Your task to perform on an android device: turn on showing notifications on the lock screen Image 0: 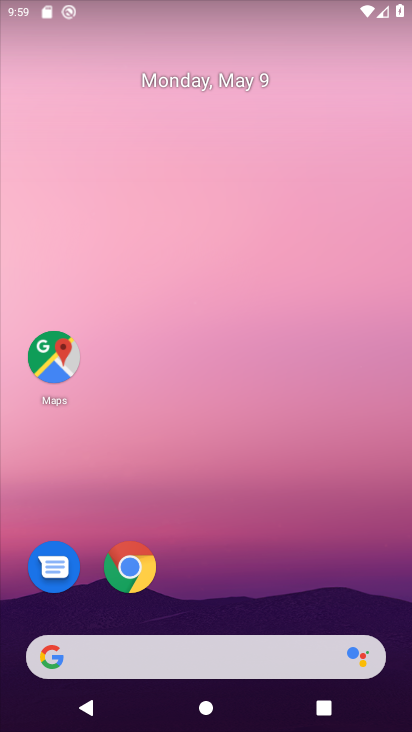
Step 0: drag from (212, 642) to (171, 181)
Your task to perform on an android device: turn on showing notifications on the lock screen Image 1: 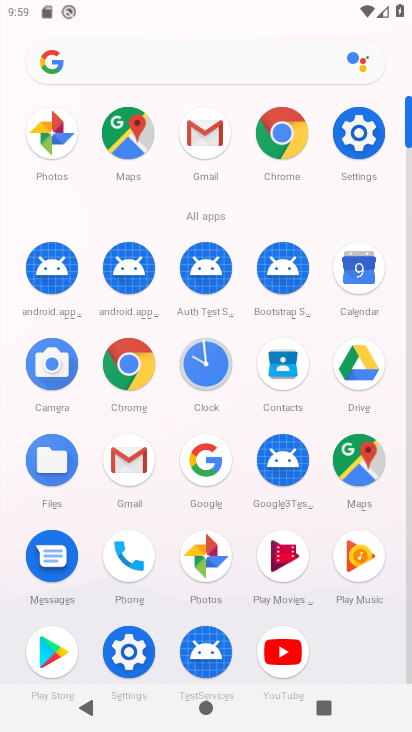
Step 1: click (344, 135)
Your task to perform on an android device: turn on showing notifications on the lock screen Image 2: 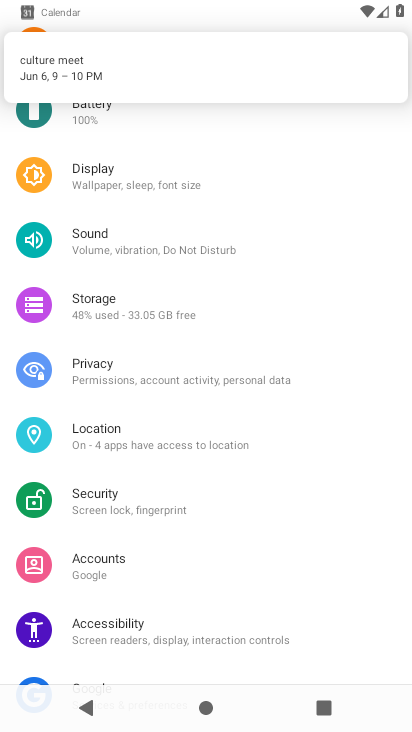
Step 2: click (88, 381)
Your task to perform on an android device: turn on showing notifications on the lock screen Image 3: 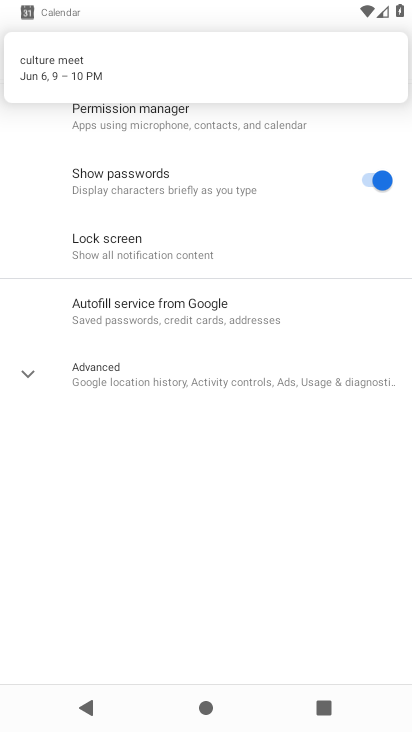
Step 3: click (150, 242)
Your task to perform on an android device: turn on showing notifications on the lock screen Image 4: 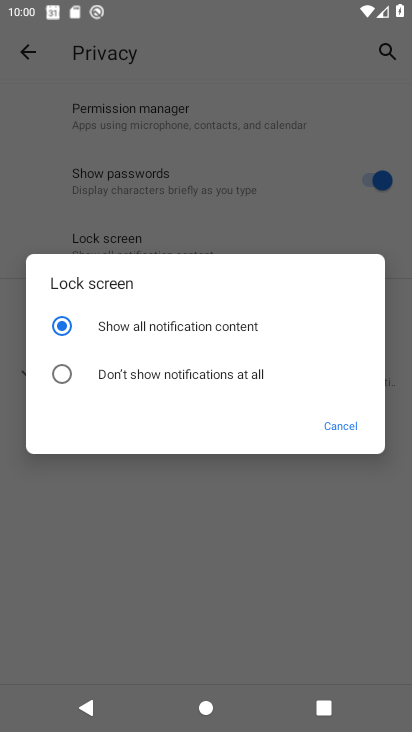
Step 4: click (354, 422)
Your task to perform on an android device: turn on showing notifications on the lock screen Image 5: 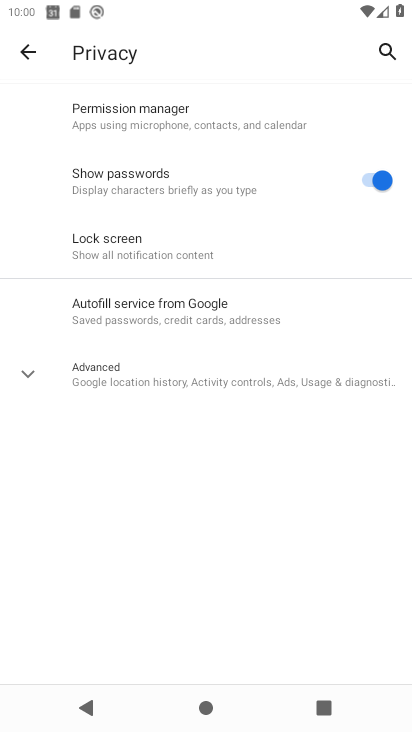
Step 5: task complete